Your task to perform on an android device: toggle location history Image 0: 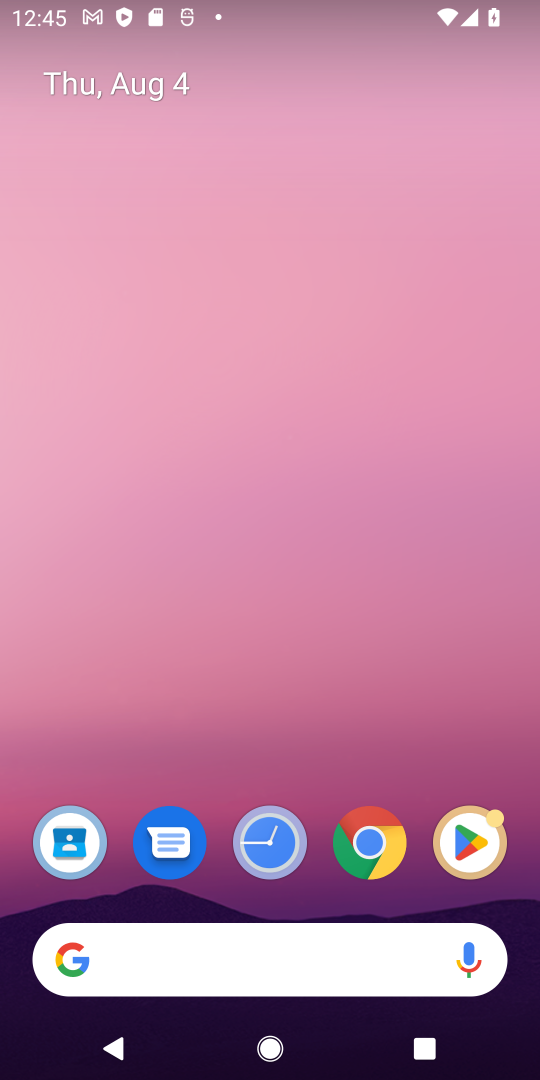
Step 0: drag from (365, 718) to (302, 127)
Your task to perform on an android device: toggle location history Image 1: 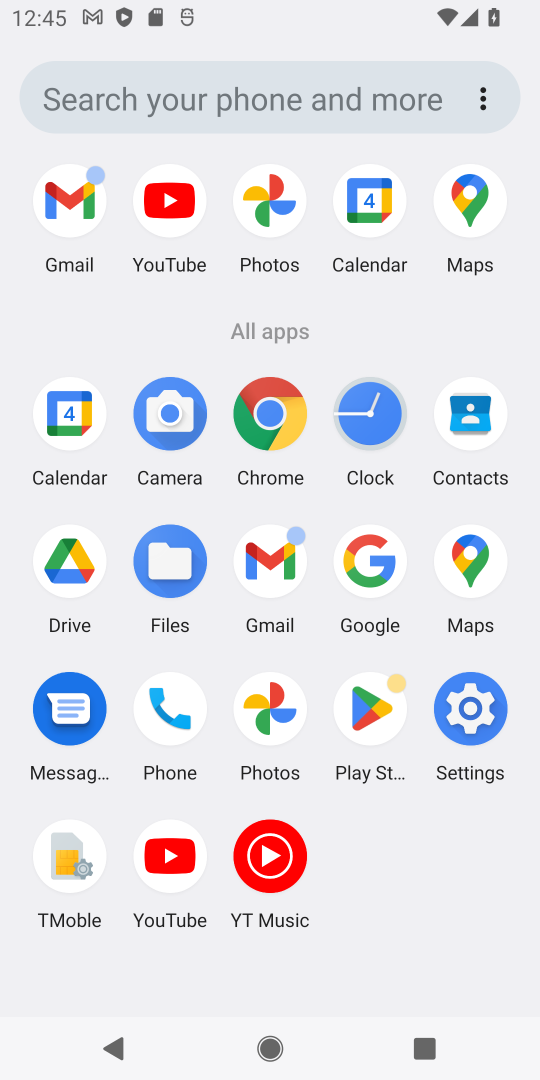
Step 1: click (479, 707)
Your task to perform on an android device: toggle location history Image 2: 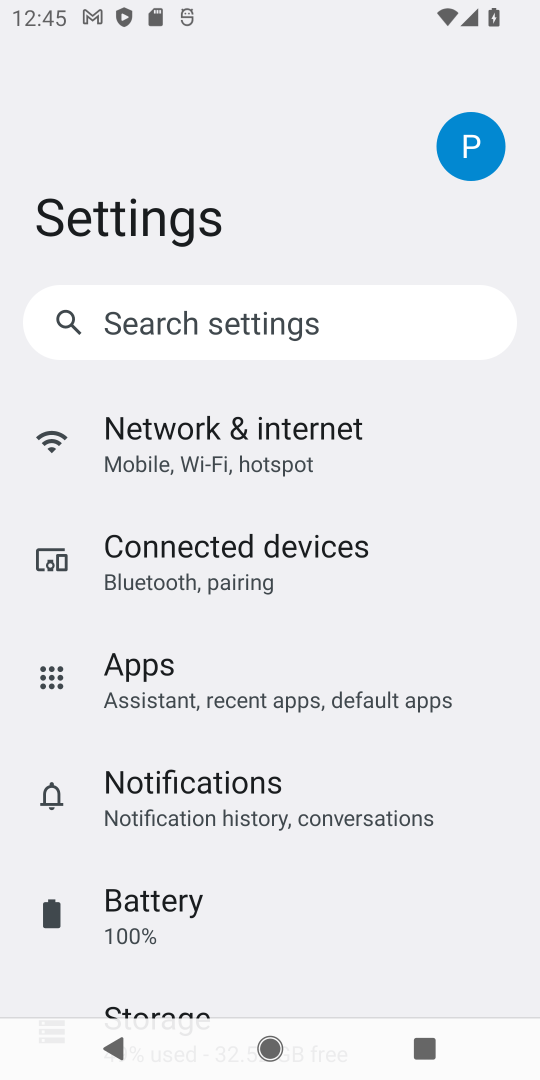
Step 2: drag from (243, 868) to (225, 243)
Your task to perform on an android device: toggle location history Image 3: 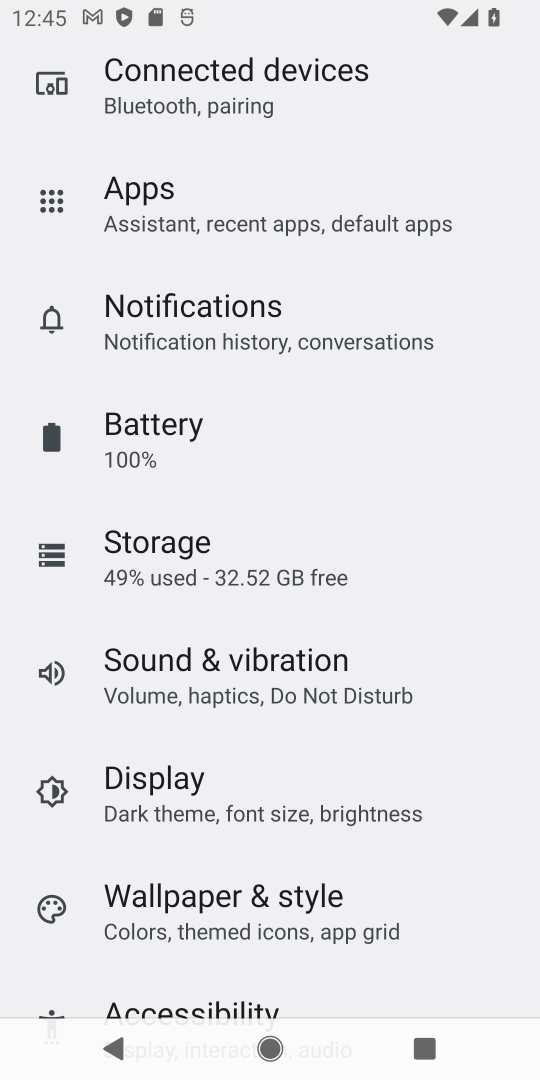
Step 3: drag from (257, 777) to (258, 114)
Your task to perform on an android device: toggle location history Image 4: 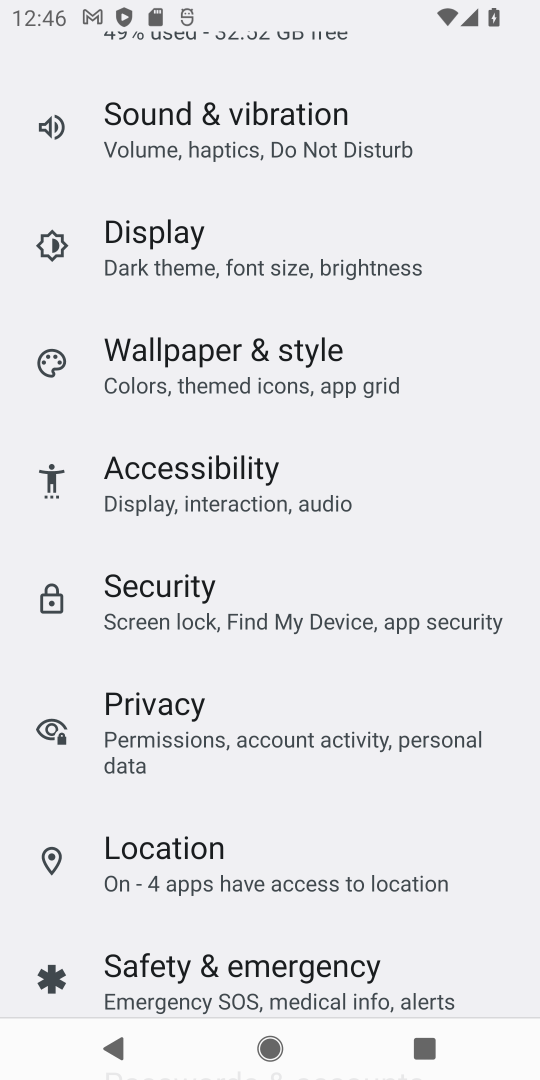
Step 4: click (188, 863)
Your task to perform on an android device: toggle location history Image 5: 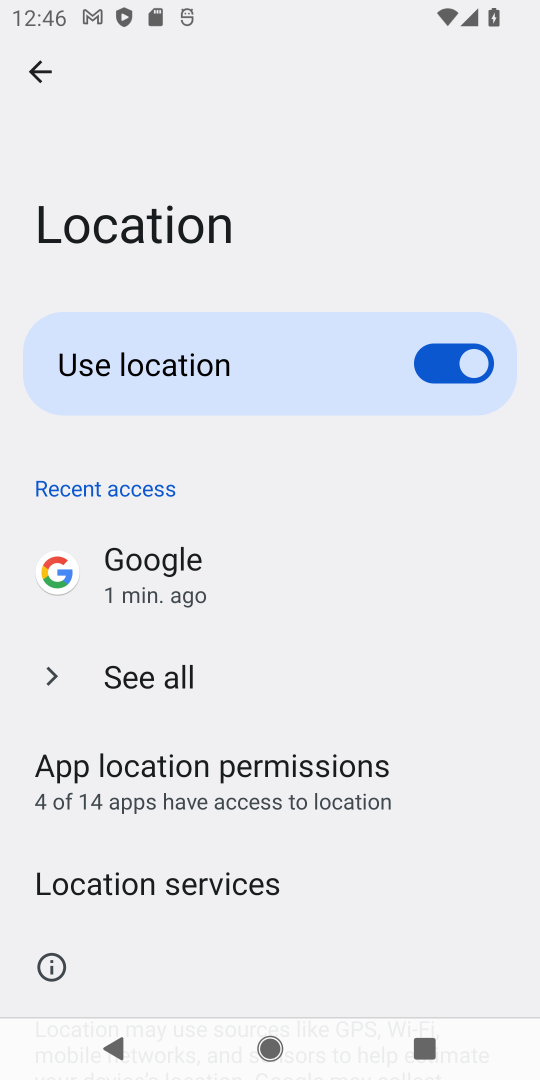
Step 5: task complete